Your task to perform on an android device: When is my next meeting? Image 0: 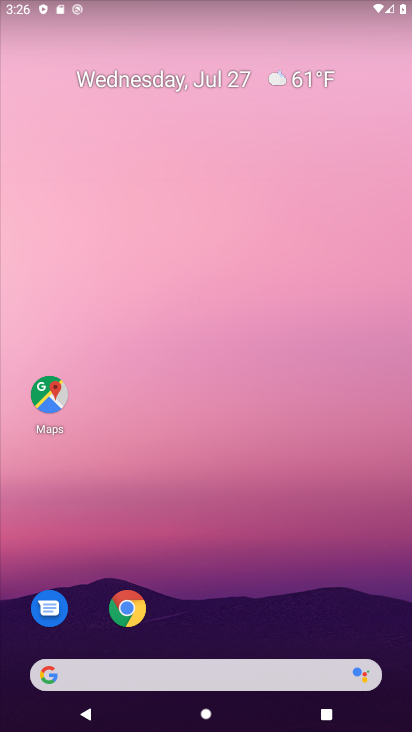
Step 0: drag from (231, 722) to (232, 177)
Your task to perform on an android device: When is my next meeting? Image 1: 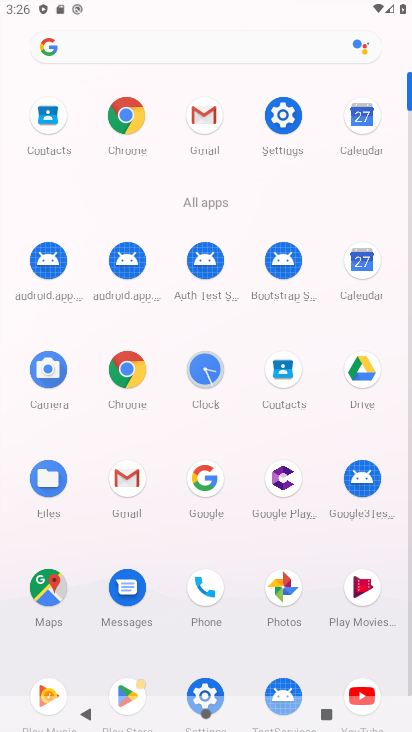
Step 1: click (359, 260)
Your task to perform on an android device: When is my next meeting? Image 2: 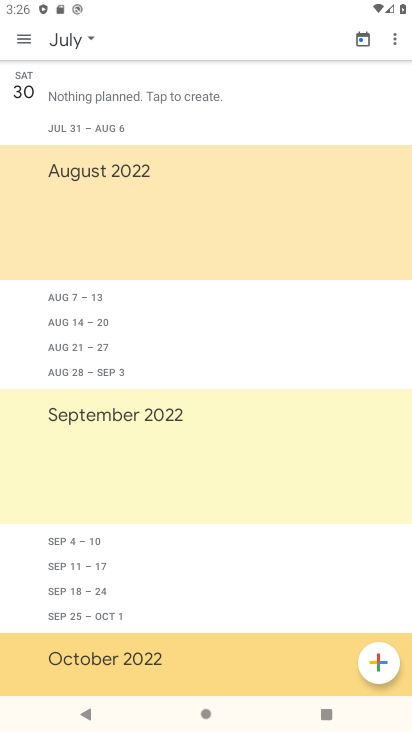
Step 2: task complete